Your task to perform on an android device: What's the weather going to be tomorrow? Image 0: 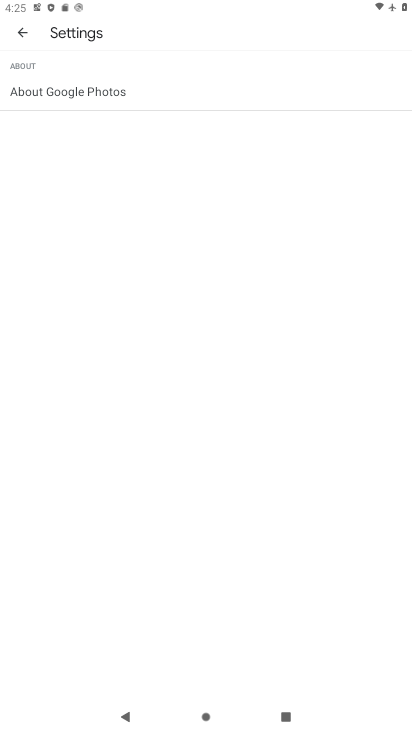
Step 0: press home button
Your task to perform on an android device: What's the weather going to be tomorrow? Image 1: 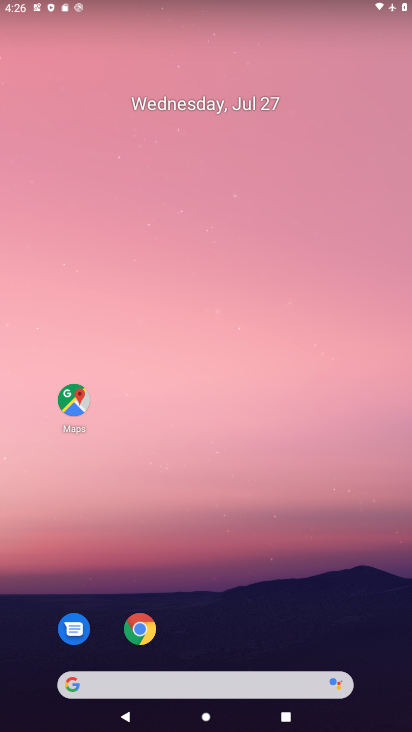
Step 1: click (205, 680)
Your task to perform on an android device: What's the weather going to be tomorrow? Image 2: 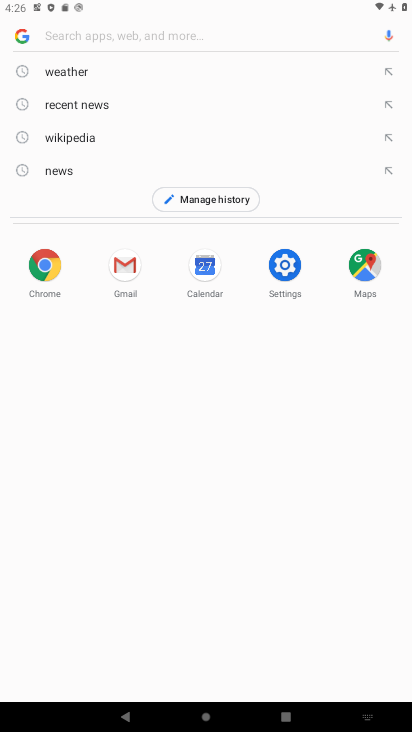
Step 2: click (62, 71)
Your task to perform on an android device: What's the weather going to be tomorrow? Image 3: 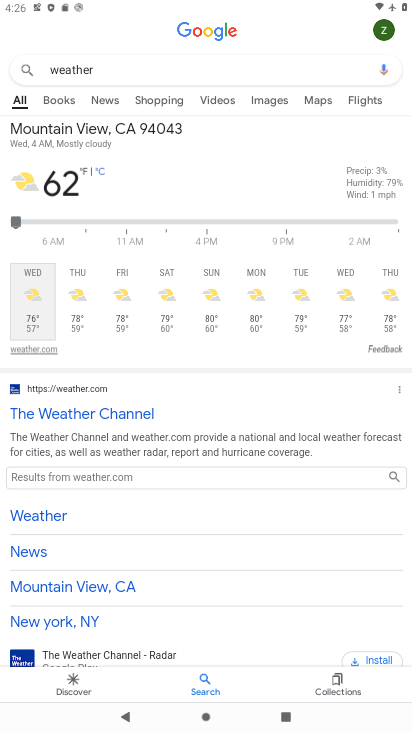
Step 3: click (74, 288)
Your task to perform on an android device: What's the weather going to be tomorrow? Image 4: 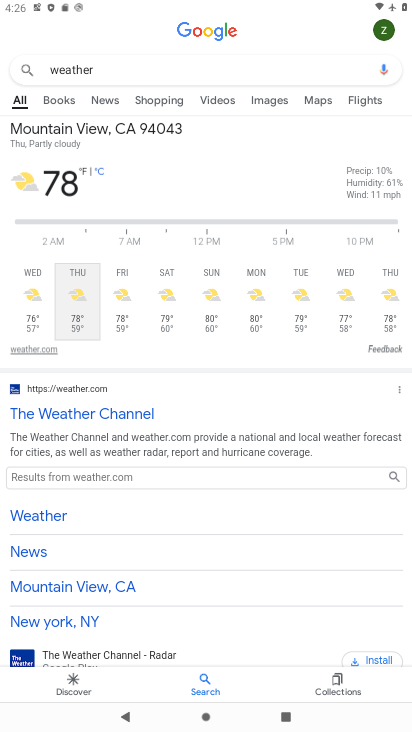
Step 4: task complete